Your task to perform on an android device: all mails in gmail Image 0: 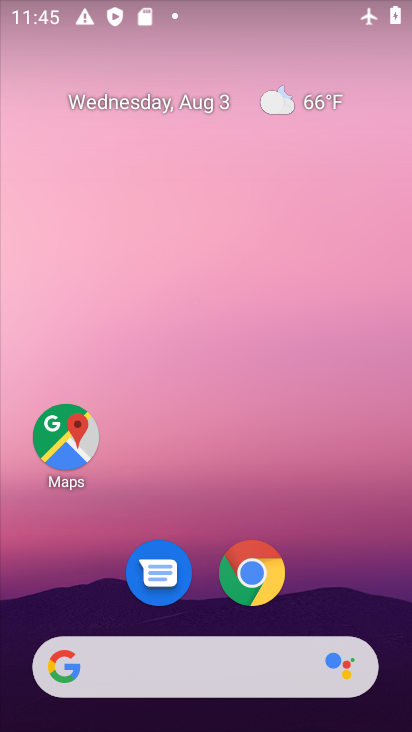
Step 0: drag from (354, 485) to (333, 126)
Your task to perform on an android device: all mails in gmail Image 1: 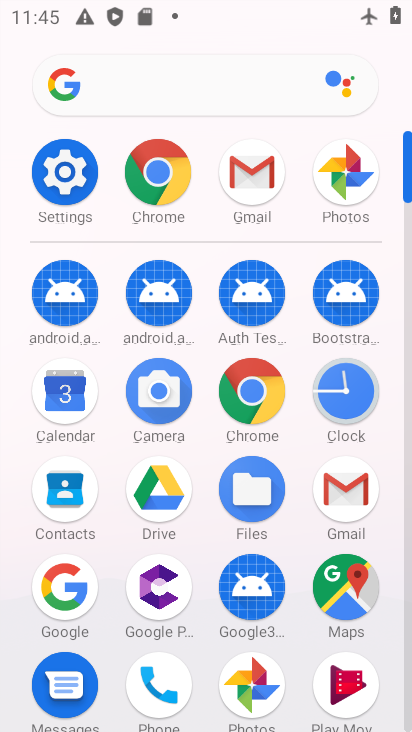
Step 1: click (248, 177)
Your task to perform on an android device: all mails in gmail Image 2: 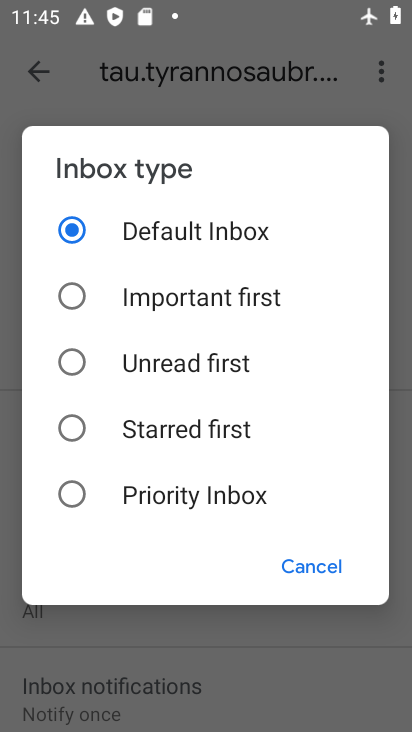
Step 2: click (326, 574)
Your task to perform on an android device: all mails in gmail Image 3: 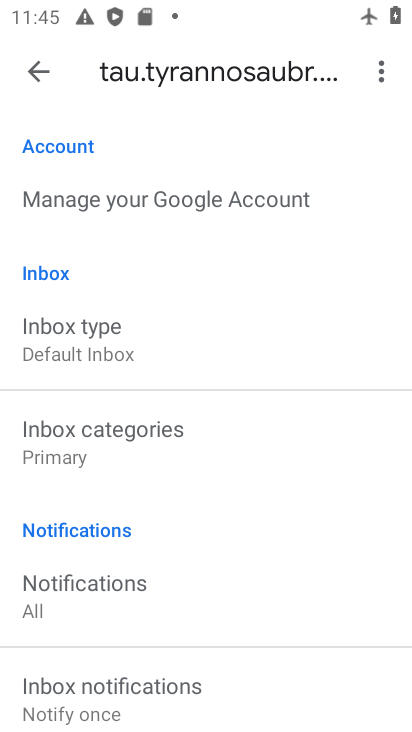
Step 3: click (39, 61)
Your task to perform on an android device: all mails in gmail Image 4: 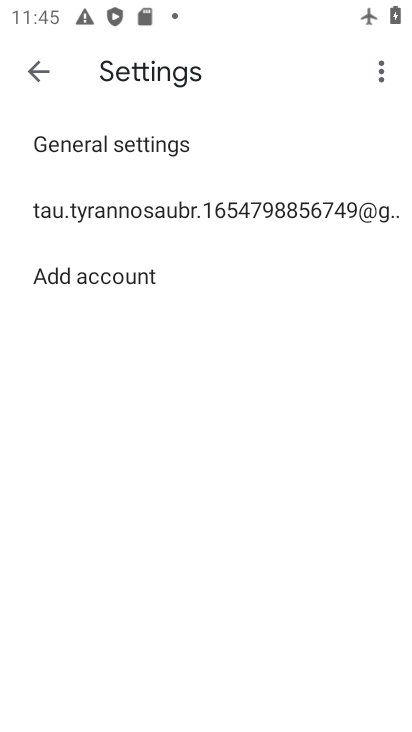
Step 4: click (39, 61)
Your task to perform on an android device: all mails in gmail Image 5: 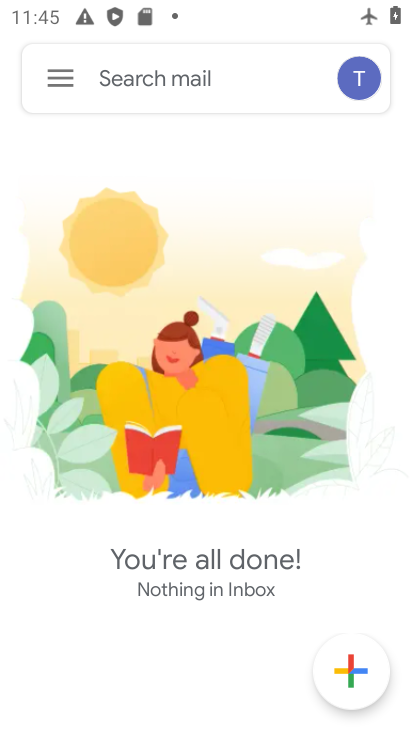
Step 5: click (73, 87)
Your task to perform on an android device: all mails in gmail Image 6: 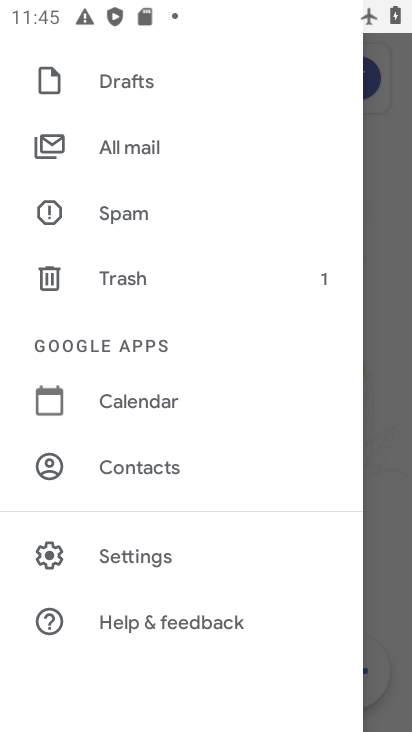
Step 6: click (175, 156)
Your task to perform on an android device: all mails in gmail Image 7: 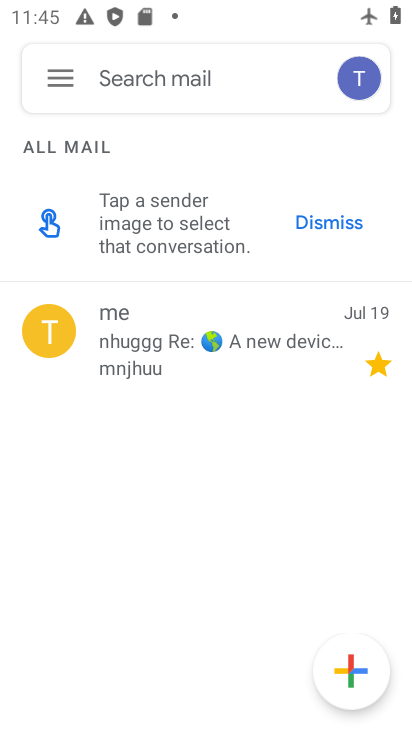
Step 7: task complete